Your task to perform on an android device: Open settings on Google Maps Image 0: 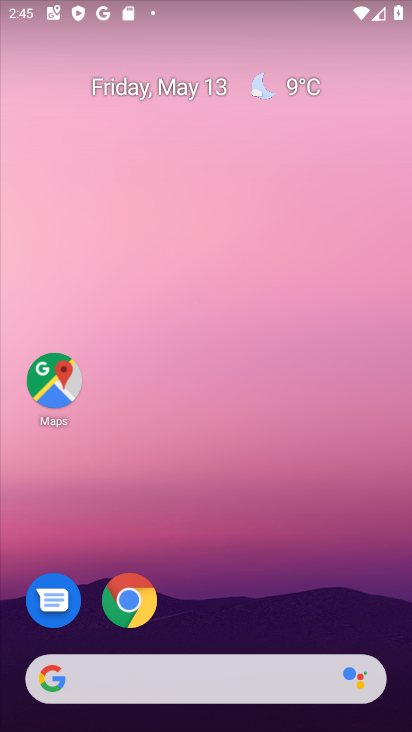
Step 0: drag from (173, 639) to (256, 3)
Your task to perform on an android device: Open settings on Google Maps Image 1: 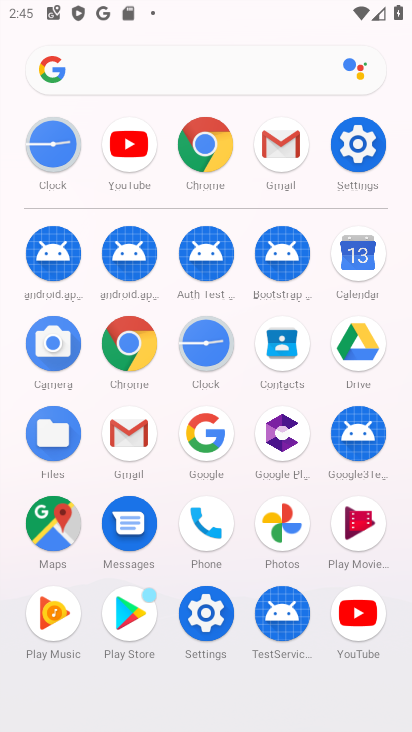
Step 1: click (57, 525)
Your task to perform on an android device: Open settings on Google Maps Image 2: 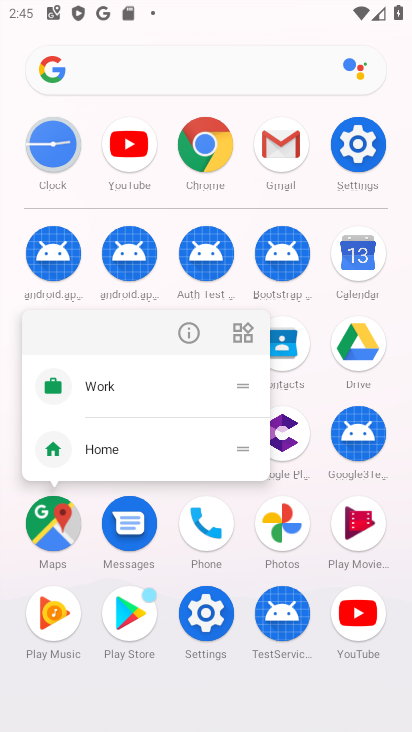
Step 2: click (188, 327)
Your task to perform on an android device: Open settings on Google Maps Image 3: 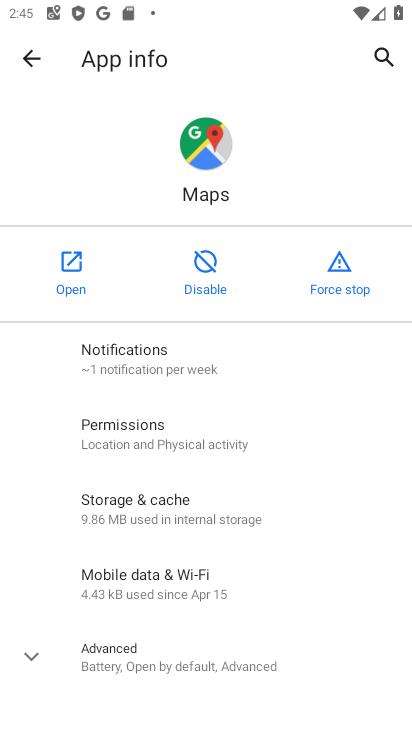
Step 3: click (75, 262)
Your task to perform on an android device: Open settings on Google Maps Image 4: 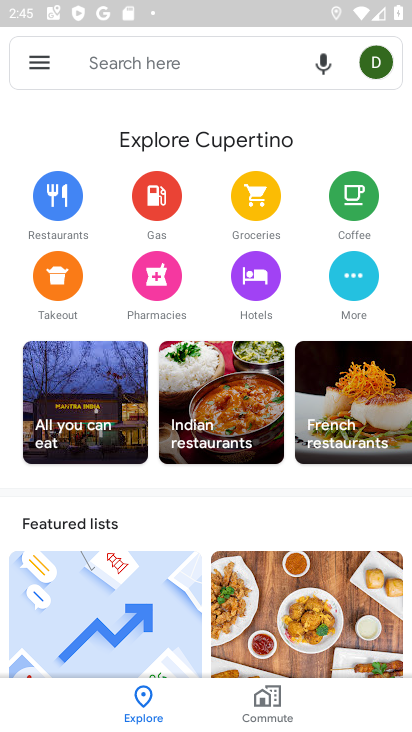
Step 4: click (53, 64)
Your task to perform on an android device: Open settings on Google Maps Image 5: 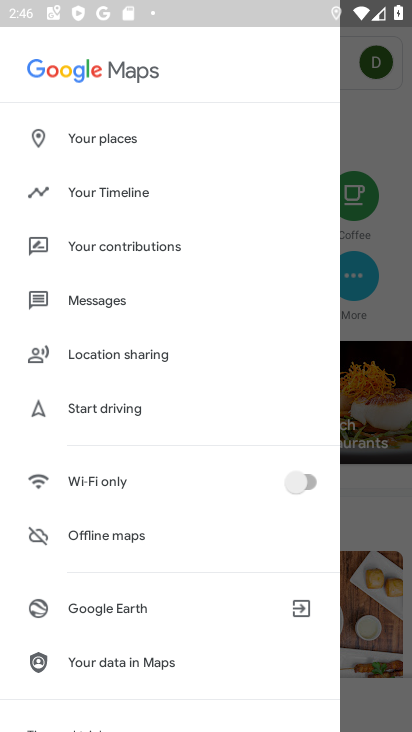
Step 5: drag from (173, 636) to (252, 92)
Your task to perform on an android device: Open settings on Google Maps Image 6: 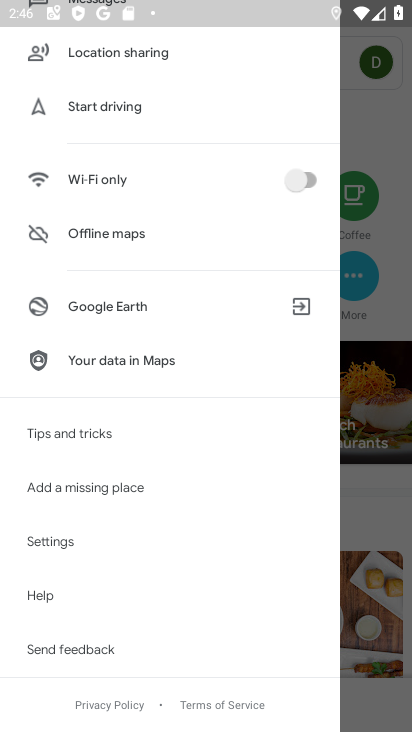
Step 6: click (72, 552)
Your task to perform on an android device: Open settings on Google Maps Image 7: 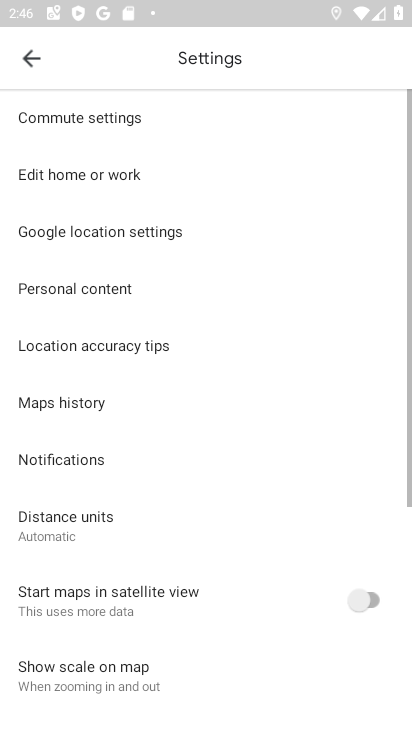
Step 7: task complete